Your task to perform on an android device: Open Maps and search for coffee Image 0: 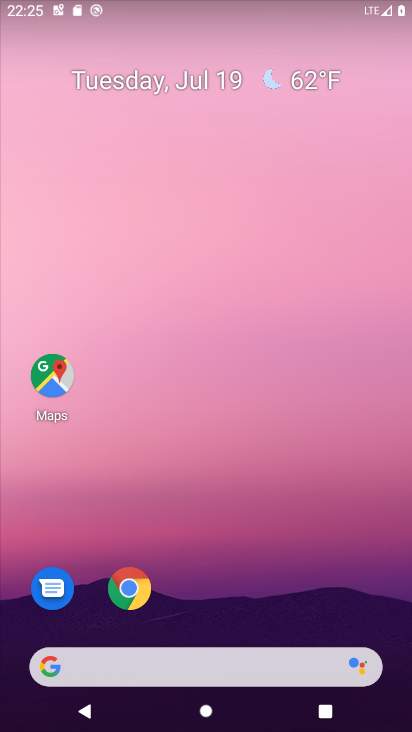
Step 0: click (47, 385)
Your task to perform on an android device: Open Maps and search for coffee Image 1: 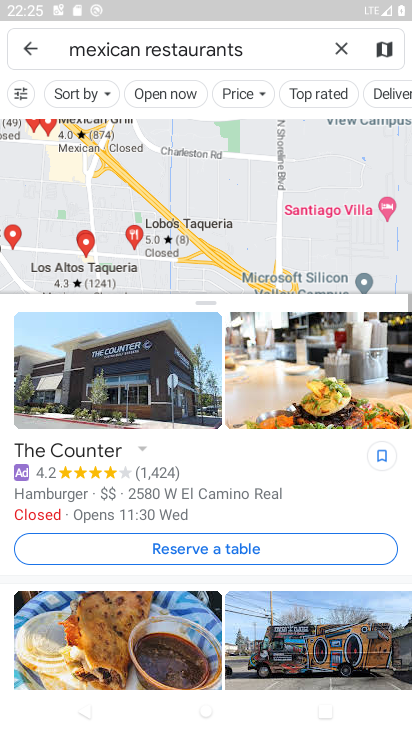
Step 1: click (344, 45)
Your task to perform on an android device: Open Maps and search for coffee Image 2: 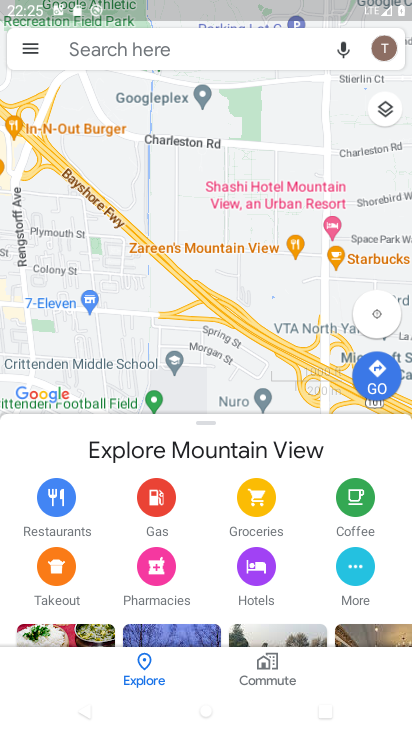
Step 2: click (198, 40)
Your task to perform on an android device: Open Maps and search for coffee Image 3: 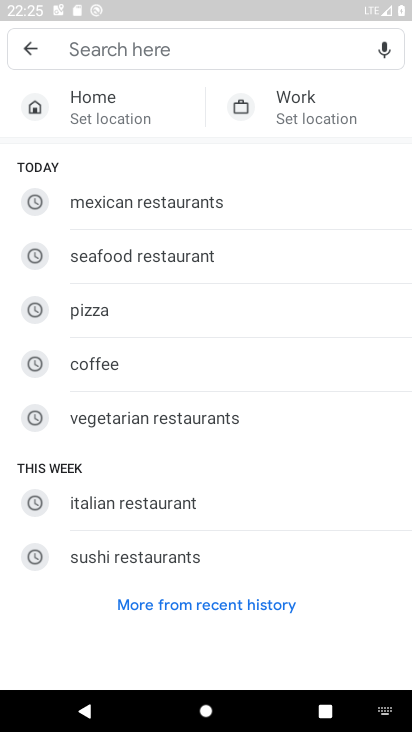
Step 3: click (74, 370)
Your task to perform on an android device: Open Maps and search for coffee Image 4: 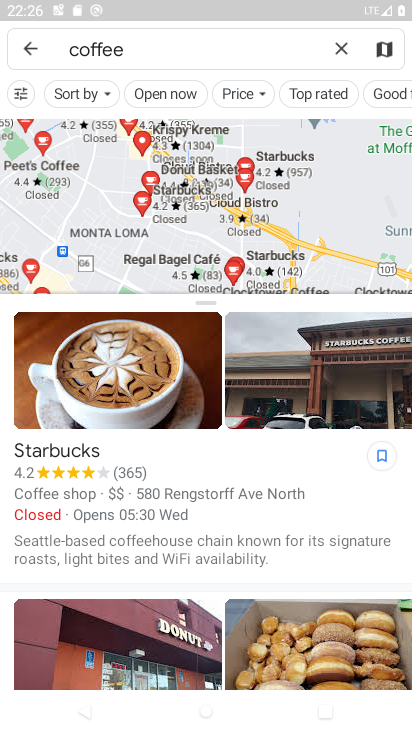
Step 4: task complete